Your task to perform on an android device: turn off javascript in the chrome app Image 0: 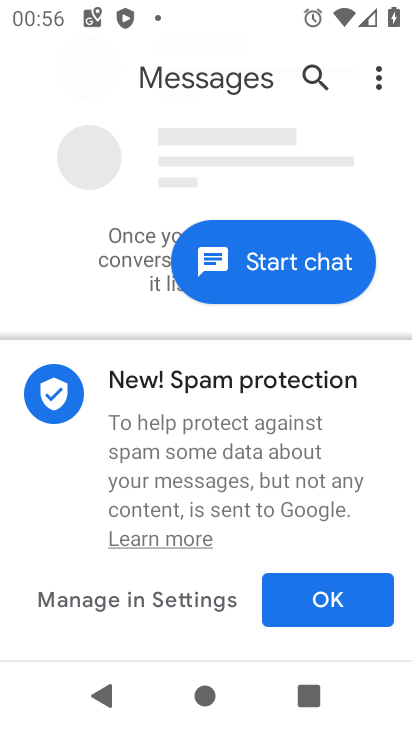
Step 0: press home button
Your task to perform on an android device: turn off javascript in the chrome app Image 1: 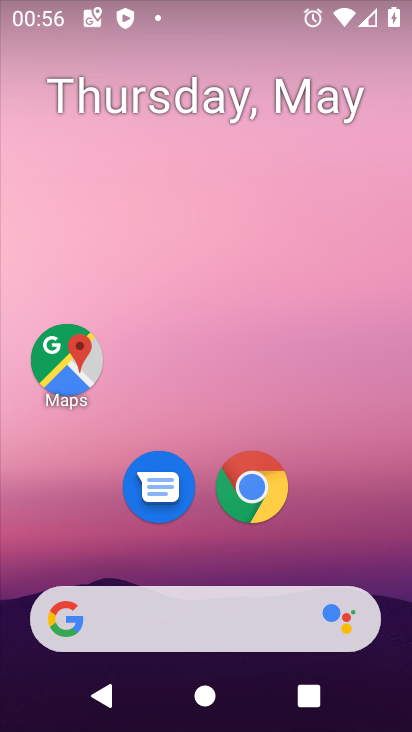
Step 1: click (255, 492)
Your task to perform on an android device: turn off javascript in the chrome app Image 2: 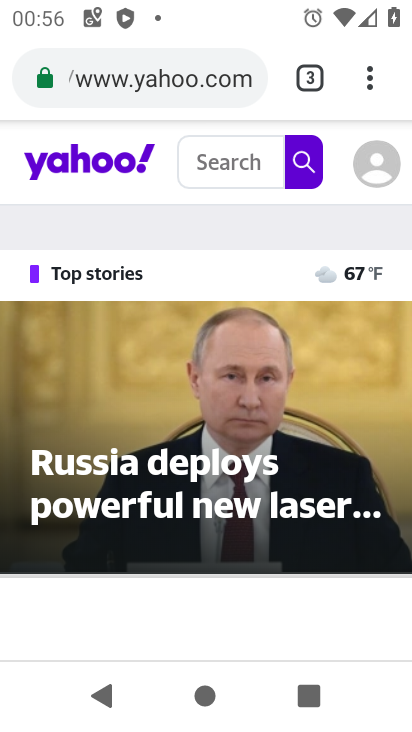
Step 2: click (369, 80)
Your task to perform on an android device: turn off javascript in the chrome app Image 3: 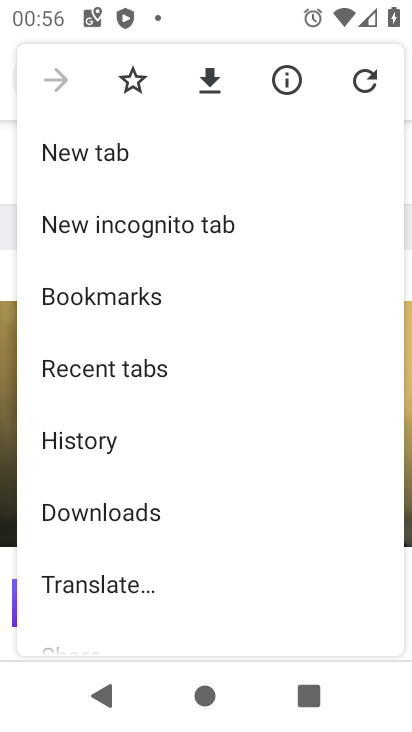
Step 3: drag from (241, 494) to (291, 148)
Your task to perform on an android device: turn off javascript in the chrome app Image 4: 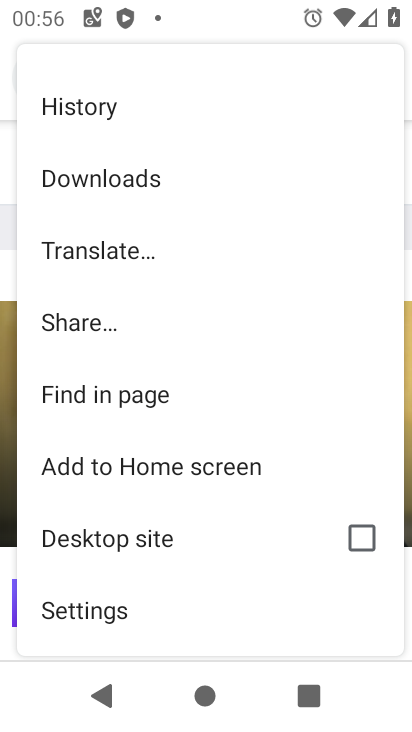
Step 4: click (68, 604)
Your task to perform on an android device: turn off javascript in the chrome app Image 5: 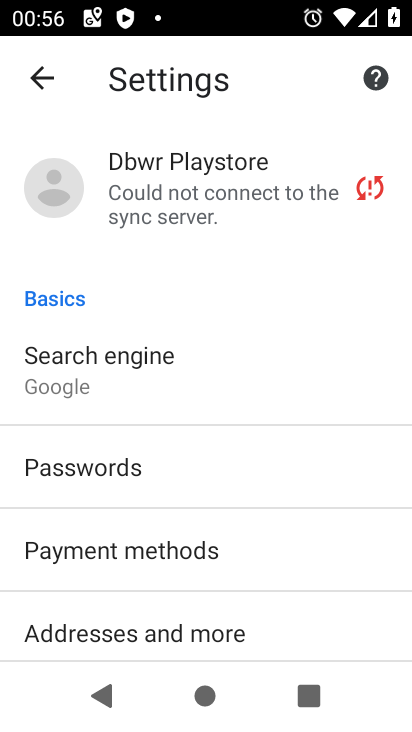
Step 5: drag from (68, 604) to (150, 3)
Your task to perform on an android device: turn off javascript in the chrome app Image 6: 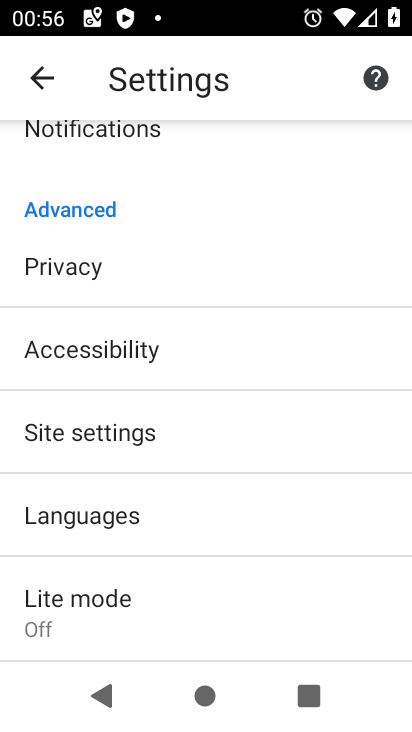
Step 6: click (98, 437)
Your task to perform on an android device: turn off javascript in the chrome app Image 7: 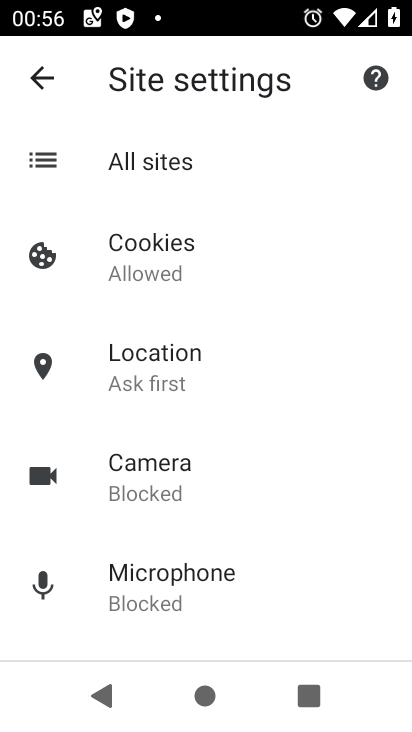
Step 7: drag from (294, 547) to (361, 0)
Your task to perform on an android device: turn off javascript in the chrome app Image 8: 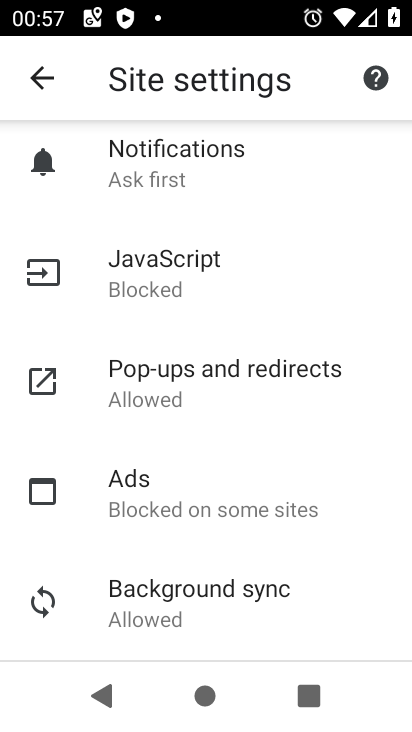
Step 8: click (156, 280)
Your task to perform on an android device: turn off javascript in the chrome app Image 9: 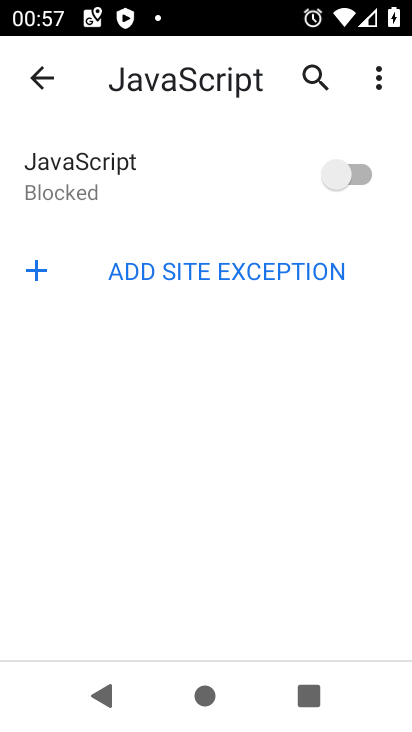
Step 9: task complete